Your task to perform on an android device: check storage Image 0: 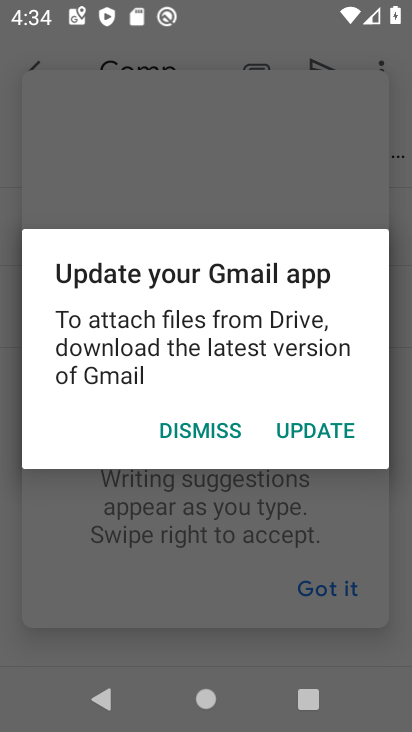
Step 0: click (316, 575)
Your task to perform on an android device: check storage Image 1: 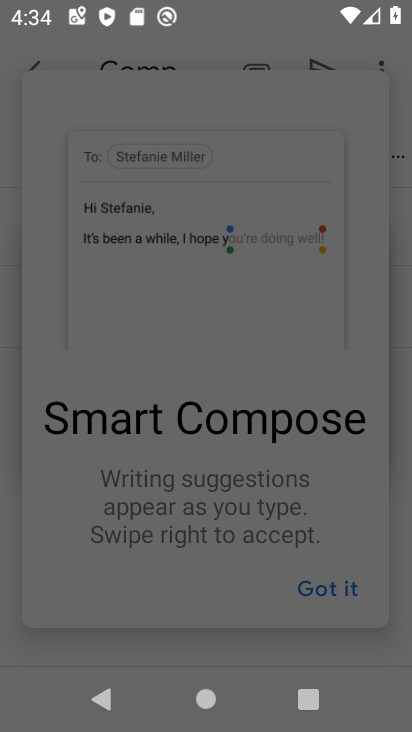
Step 1: press back button
Your task to perform on an android device: check storage Image 2: 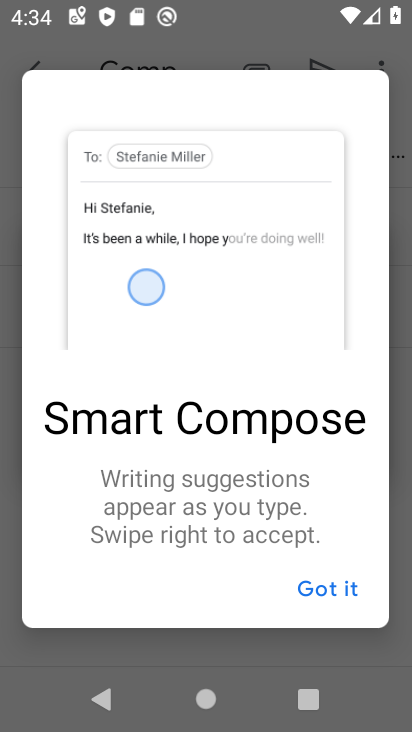
Step 2: press back button
Your task to perform on an android device: check storage Image 3: 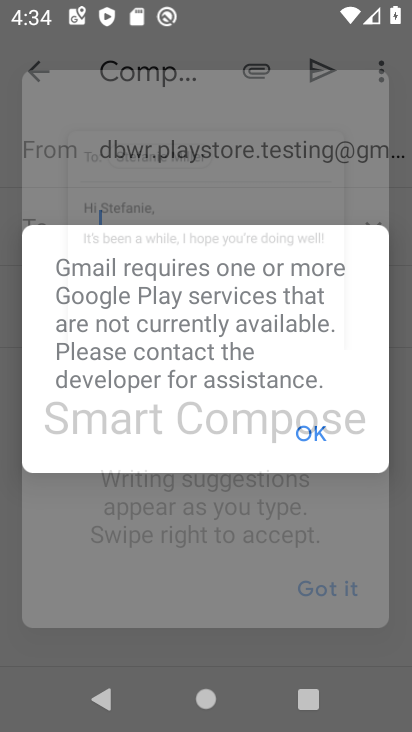
Step 3: press back button
Your task to perform on an android device: check storage Image 4: 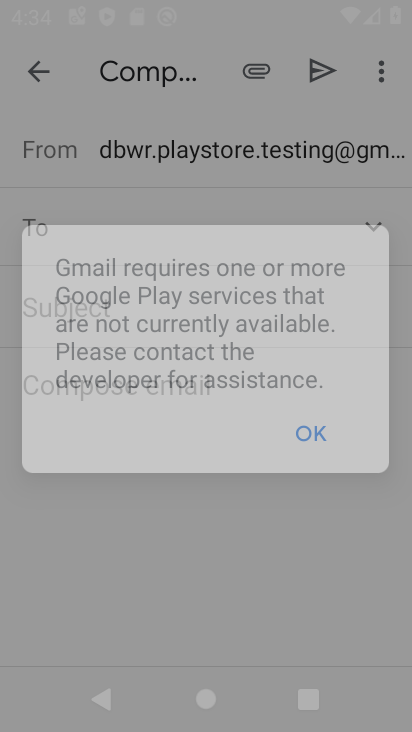
Step 4: press home button
Your task to perform on an android device: check storage Image 5: 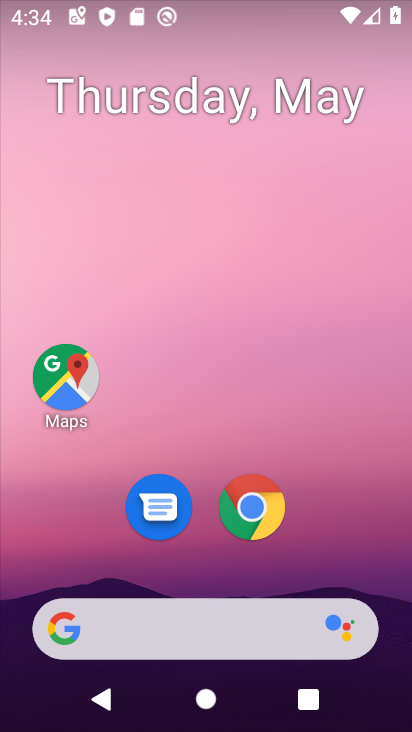
Step 5: drag from (307, 630) to (180, 70)
Your task to perform on an android device: check storage Image 6: 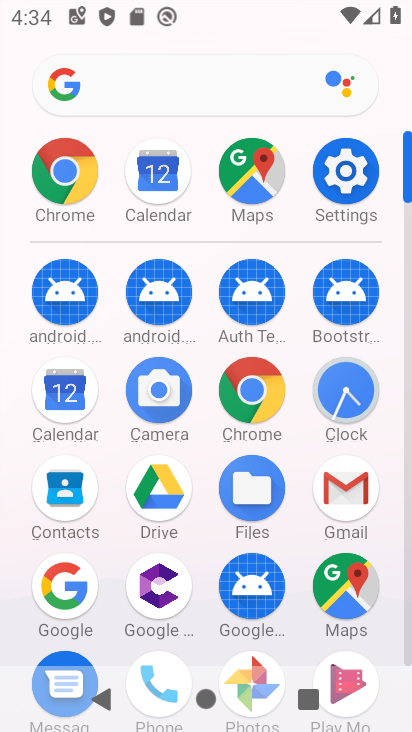
Step 6: click (354, 162)
Your task to perform on an android device: check storage Image 7: 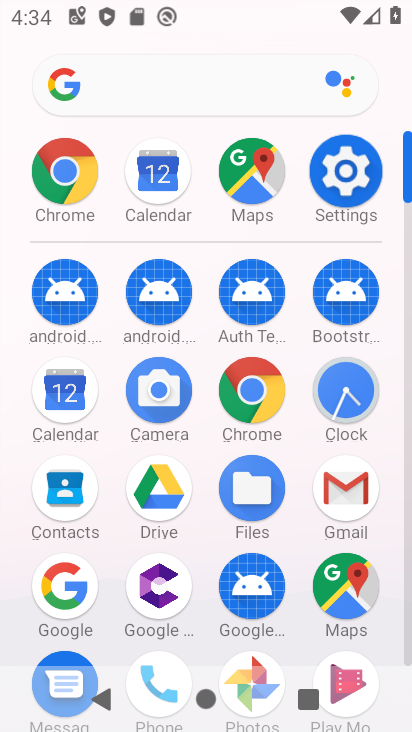
Step 7: click (355, 163)
Your task to perform on an android device: check storage Image 8: 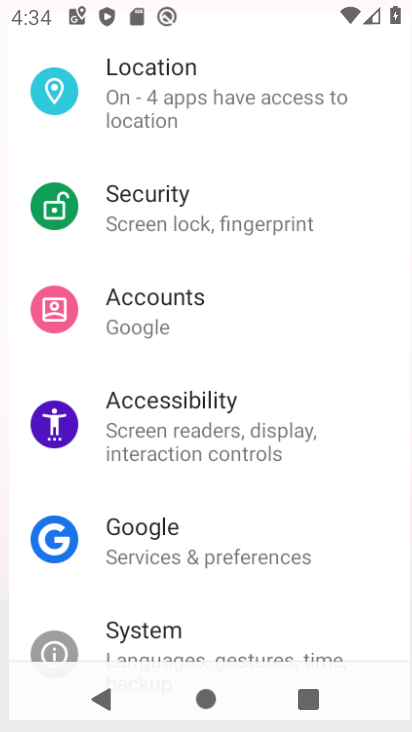
Step 8: click (353, 168)
Your task to perform on an android device: check storage Image 9: 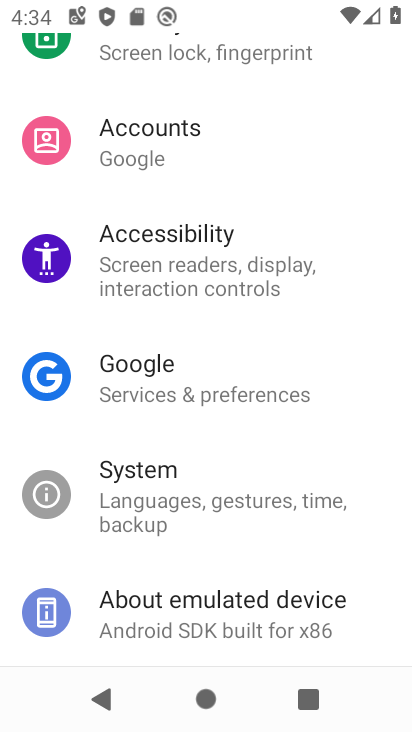
Step 9: click (350, 171)
Your task to perform on an android device: check storage Image 10: 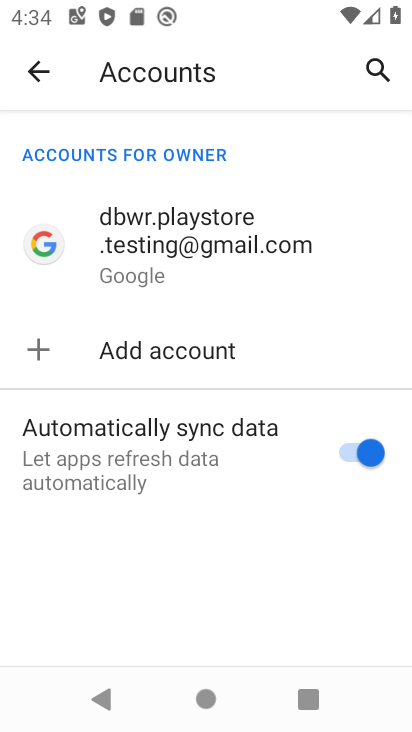
Step 10: click (44, 67)
Your task to perform on an android device: check storage Image 11: 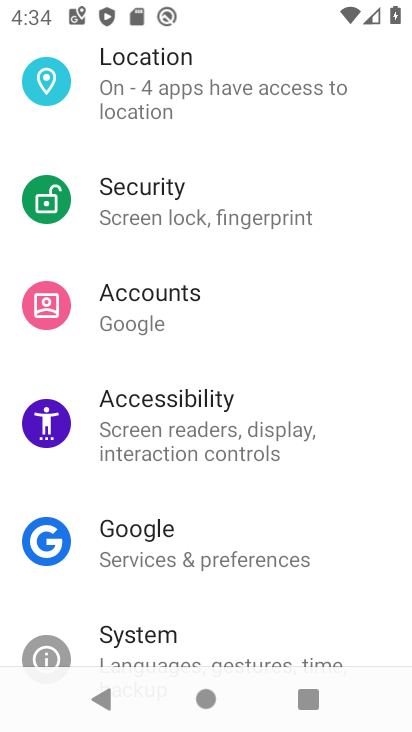
Step 11: drag from (137, 130) to (179, 528)
Your task to perform on an android device: check storage Image 12: 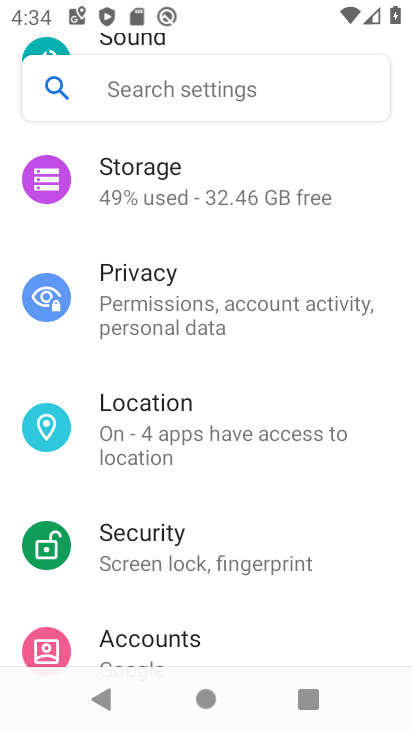
Step 12: drag from (180, 386) to (210, 543)
Your task to perform on an android device: check storage Image 13: 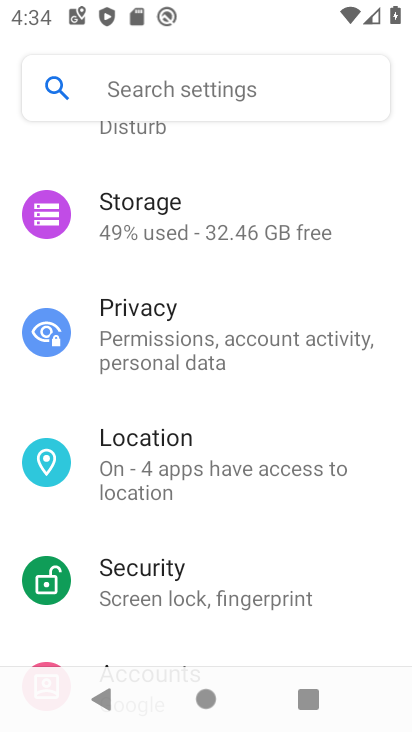
Step 13: drag from (172, 187) to (182, 220)
Your task to perform on an android device: check storage Image 14: 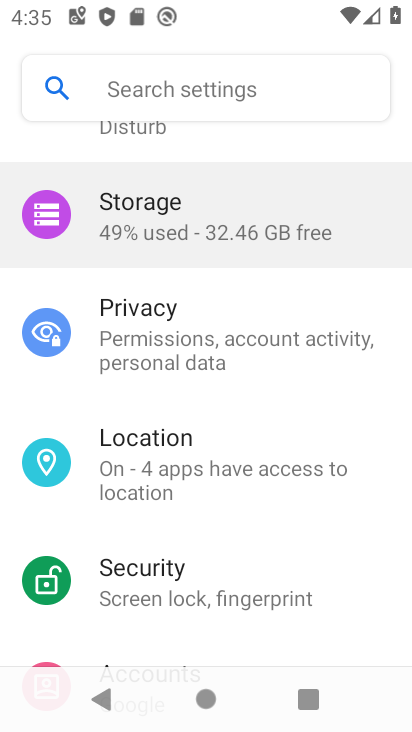
Step 14: click (182, 220)
Your task to perform on an android device: check storage Image 15: 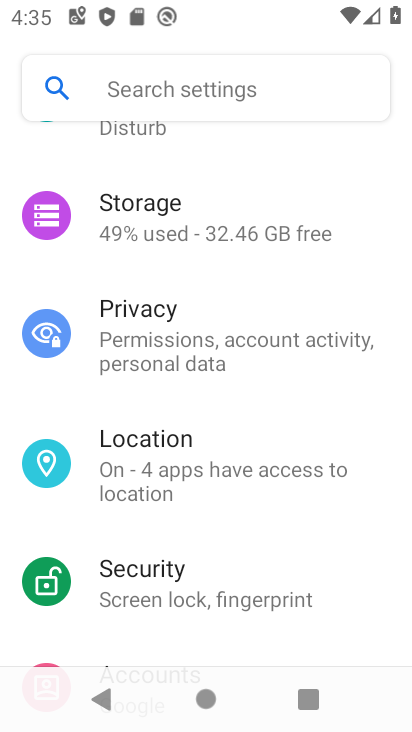
Step 15: click (182, 220)
Your task to perform on an android device: check storage Image 16: 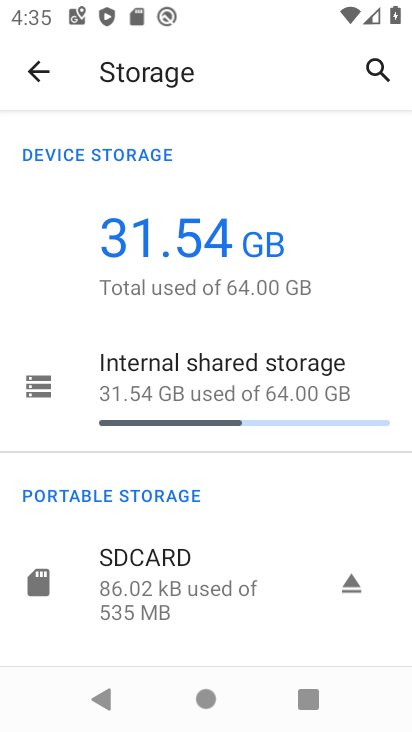
Step 16: task complete